Your task to perform on an android device: Is it going to rain today? Image 0: 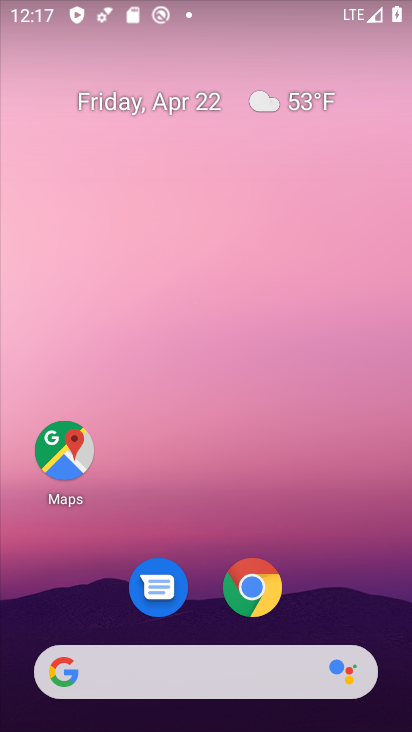
Step 0: drag from (139, 295) to (59, 610)
Your task to perform on an android device: Is it going to rain today? Image 1: 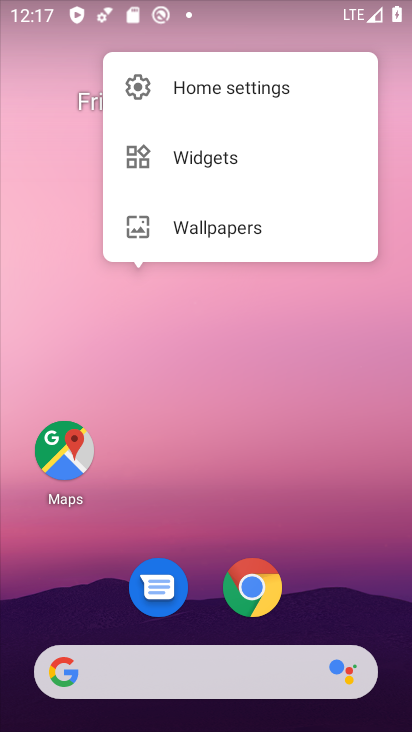
Step 1: drag from (312, 507) to (261, 225)
Your task to perform on an android device: Is it going to rain today? Image 2: 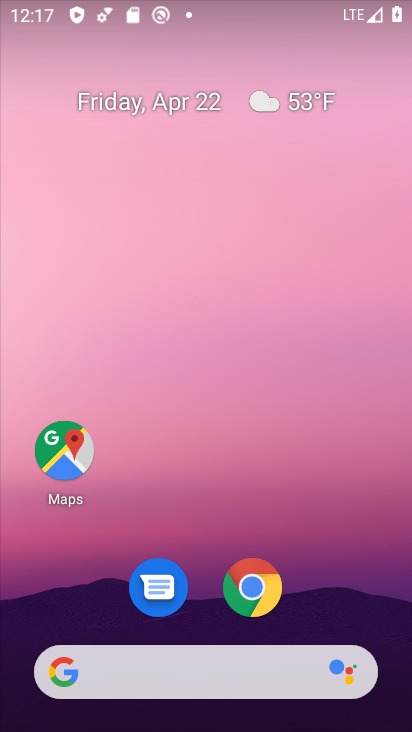
Step 2: click (252, 594)
Your task to perform on an android device: Is it going to rain today? Image 3: 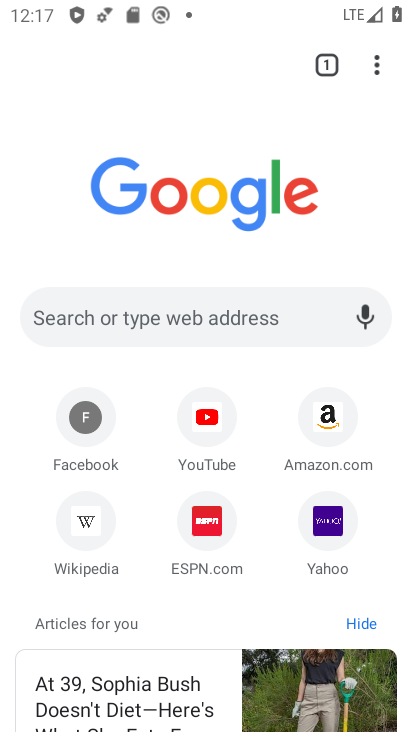
Step 3: click (137, 307)
Your task to perform on an android device: Is it going to rain today? Image 4: 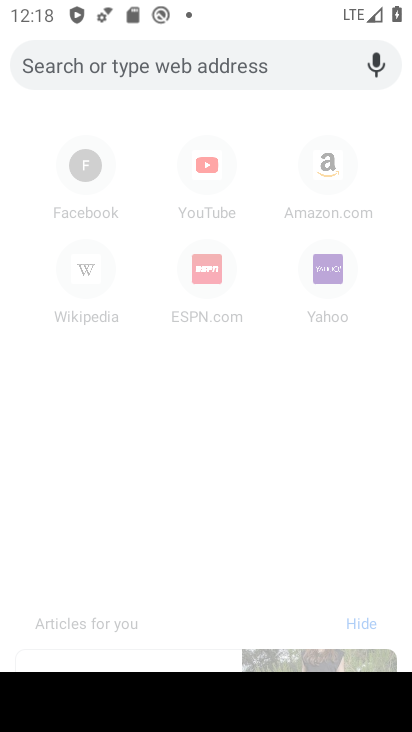
Step 4: type "is it going to rain today?"
Your task to perform on an android device: Is it going to rain today? Image 5: 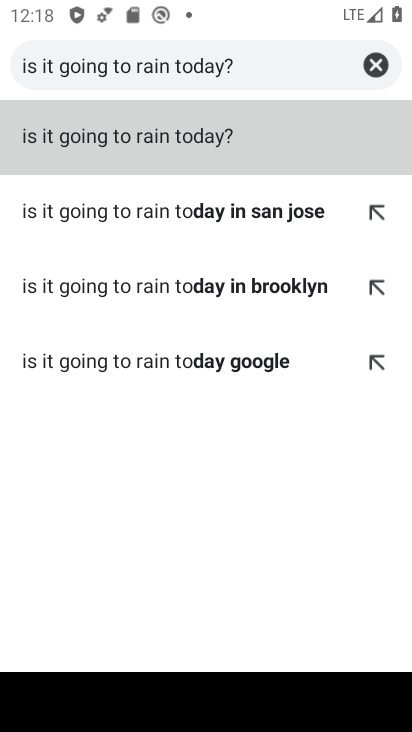
Step 5: click (159, 135)
Your task to perform on an android device: Is it going to rain today? Image 6: 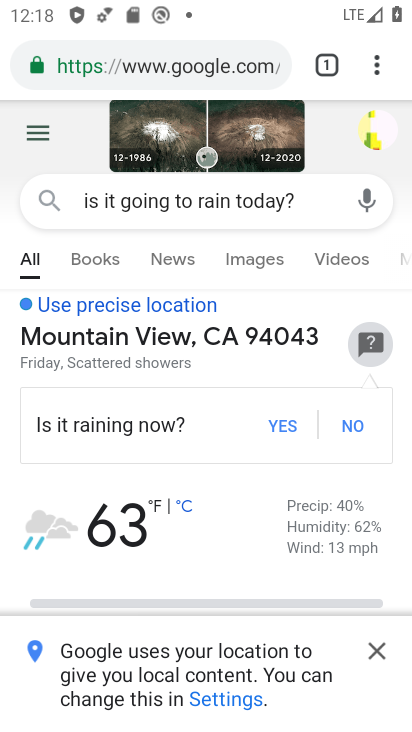
Step 6: task complete